Your task to perform on an android device: Open calendar and show me the fourth week of next month Image 0: 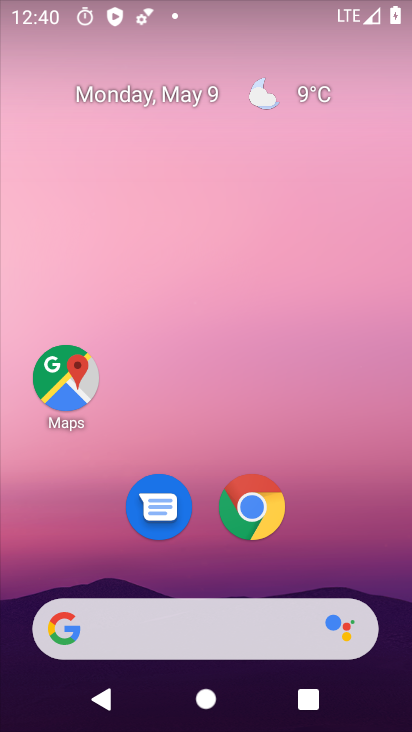
Step 0: drag from (221, 726) to (219, 93)
Your task to perform on an android device: Open calendar and show me the fourth week of next month Image 1: 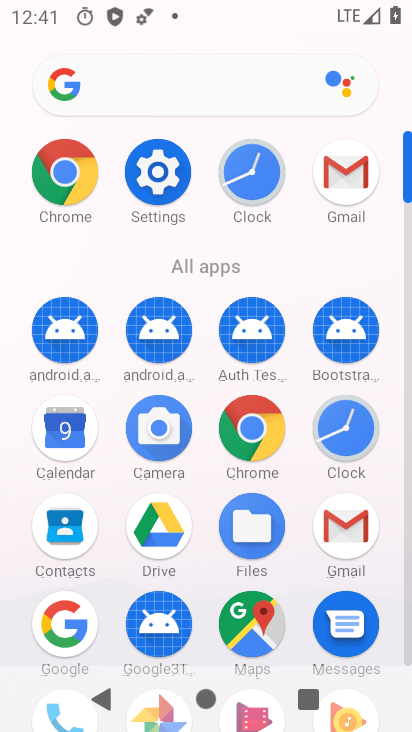
Step 1: click (64, 427)
Your task to perform on an android device: Open calendar and show me the fourth week of next month Image 2: 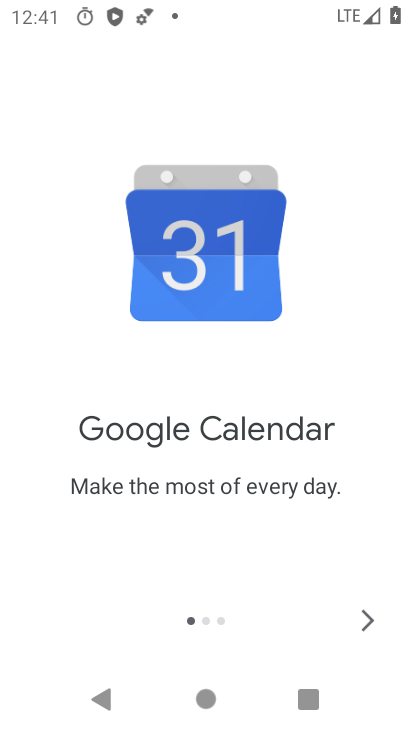
Step 2: click (369, 619)
Your task to perform on an android device: Open calendar and show me the fourth week of next month Image 3: 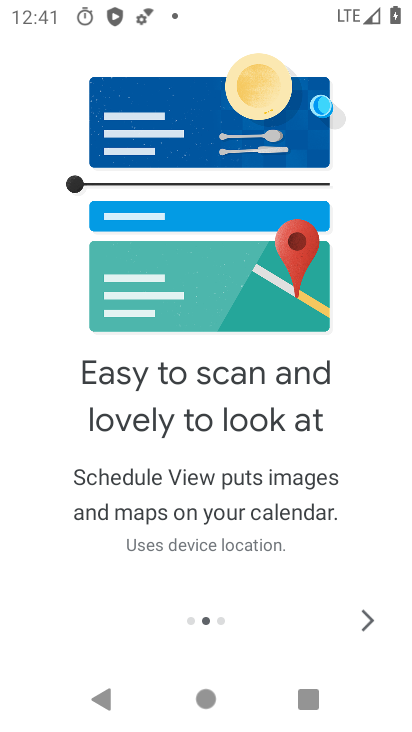
Step 3: click (365, 616)
Your task to perform on an android device: Open calendar and show me the fourth week of next month Image 4: 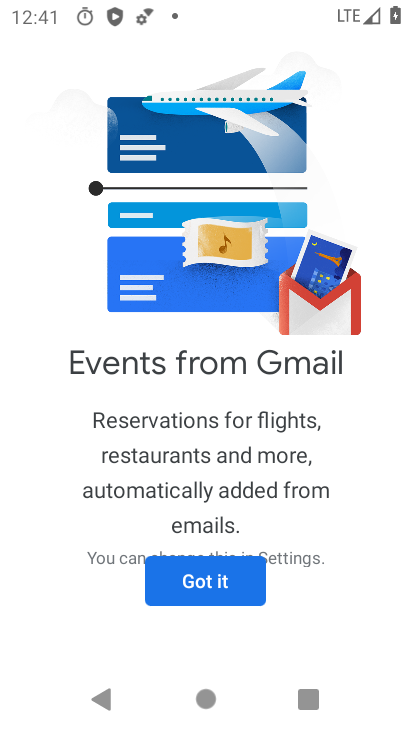
Step 4: click (188, 582)
Your task to perform on an android device: Open calendar and show me the fourth week of next month Image 5: 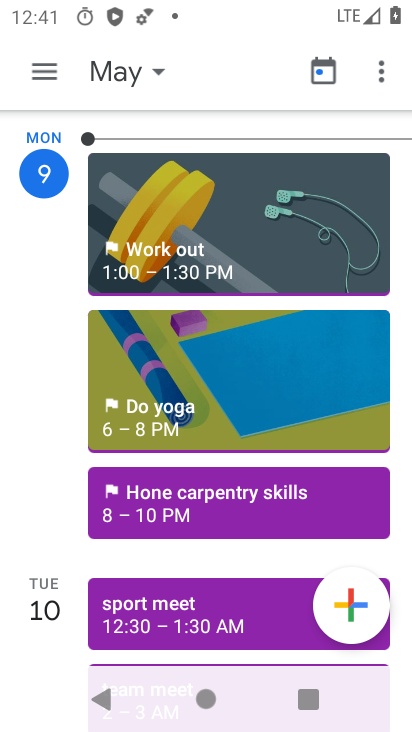
Step 5: click (121, 80)
Your task to perform on an android device: Open calendar and show me the fourth week of next month Image 6: 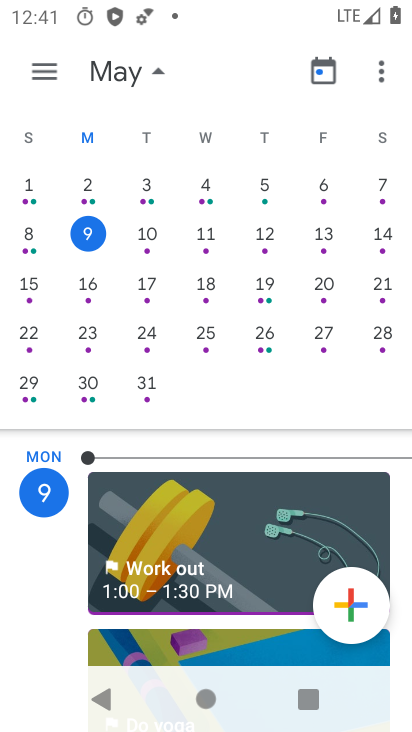
Step 6: drag from (373, 275) to (2, 240)
Your task to perform on an android device: Open calendar and show me the fourth week of next month Image 7: 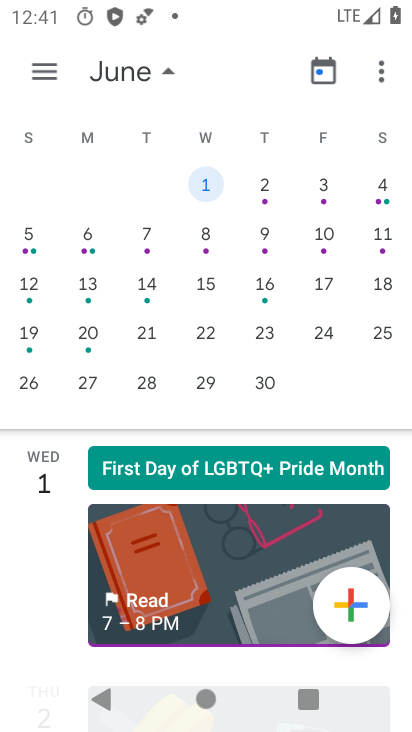
Step 7: click (86, 376)
Your task to perform on an android device: Open calendar and show me the fourth week of next month Image 8: 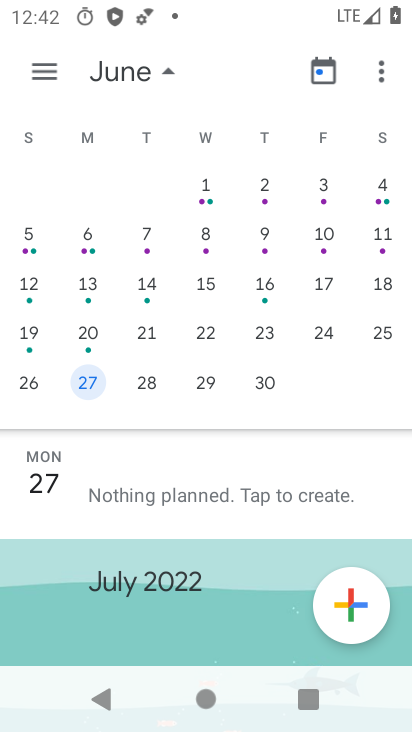
Step 8: task complete